Your task to perform on an android device: toggle show notifications on the lock screen Image 0: 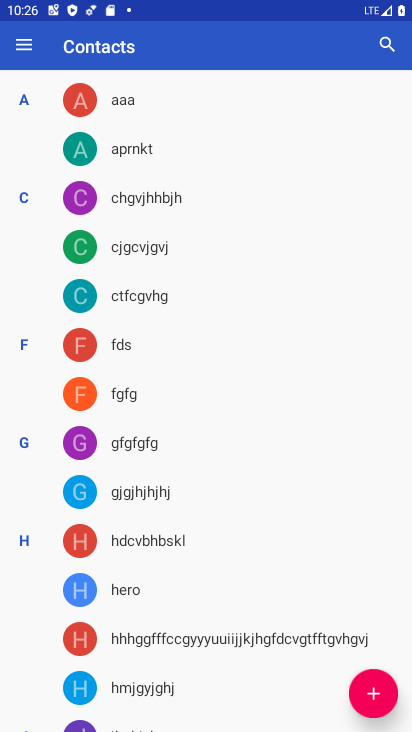
Step 0: press home button
Your task to perform on an android device: toggle show notifications on the lock screen Image 1: 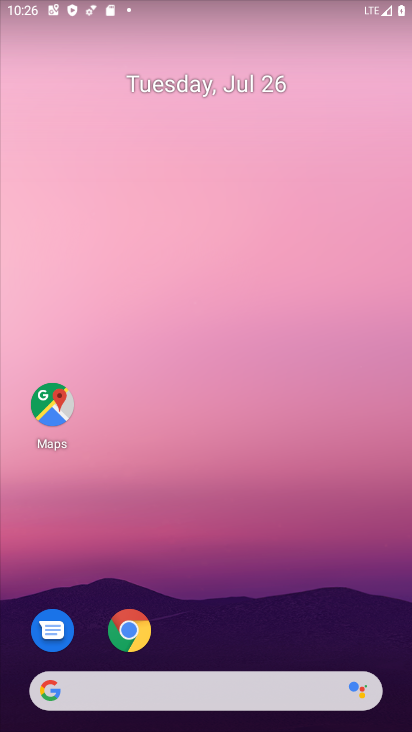
Step 1: drag from (175, 479) to (175, 119)
Your task to perform on an android device: toggle show notifications on the lock screen Image 2: 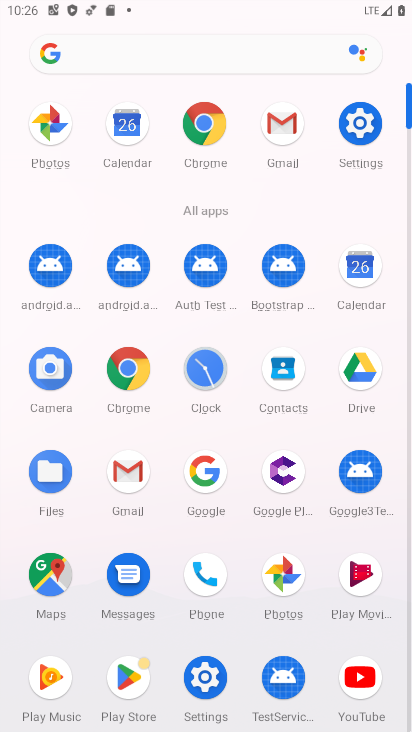
Step 2: click (357, 140)
Your task to perform on an android device: toggle show notifications on the lock screen Image 3: 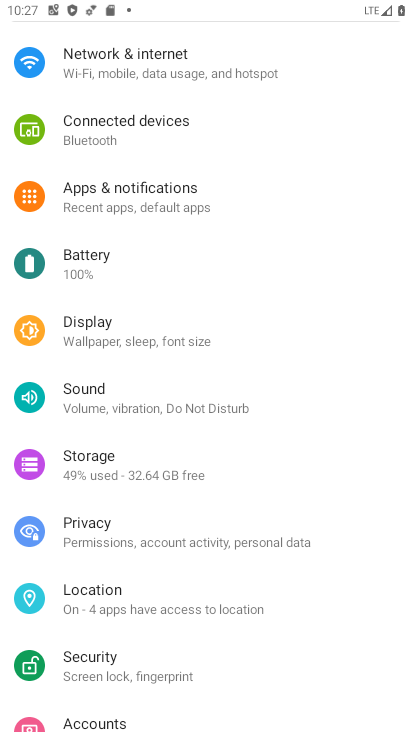
Step 3: click (109, 201)
Your task to perform on an android device: toggle show notifications on the lock screen Image 4: 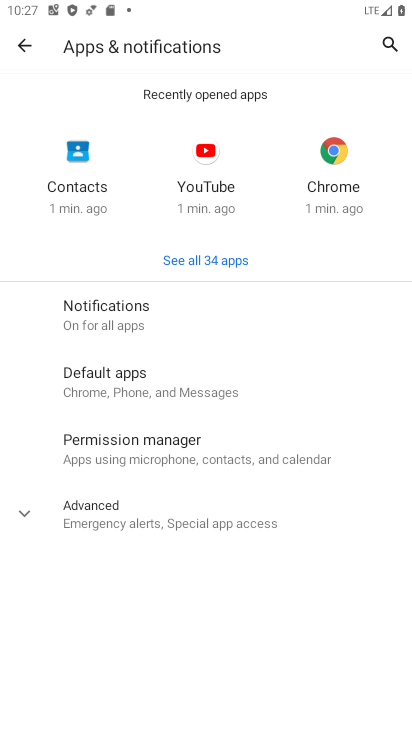
Step 4: click (121, 308)
Your task to perform on an android device: toggle show notifications on the lock screen Image 5: 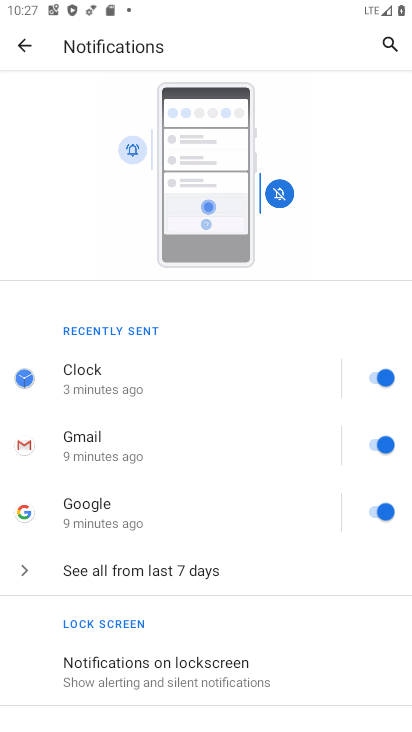
Step 5: click (116, 666)
Your task to perform on an android device: toggle show notifications on the lock screen Image 6: 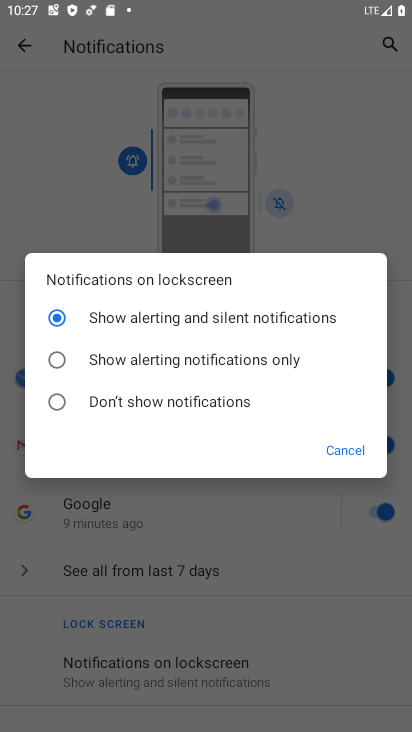
Step 6: click (56, 405)
Your task to perform on an android device: toggle show notifications on the lock screen Image 7: 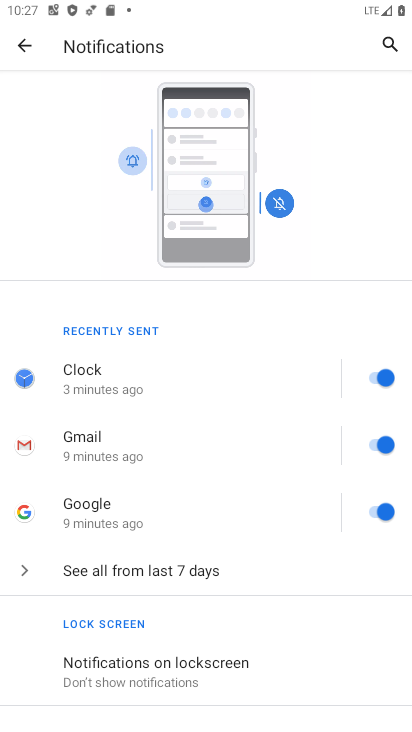
Step 7: task complete